Your task to perform on an android device: Go to sound settings Image 0: 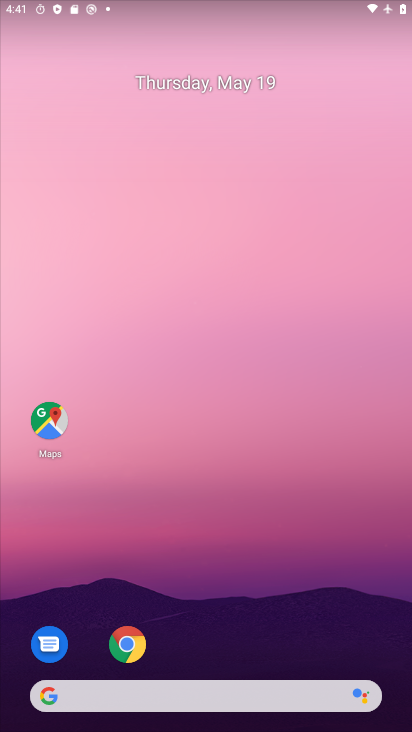
Step 0: drag from (207, 688) to (209, 269)
Your task to perform on an android device: Go to sound settings Image 1: 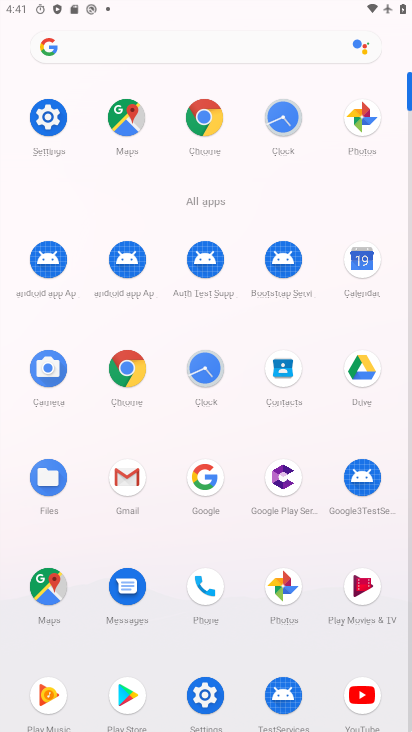
Step 1: click (55, 114)
Your task to perform on an android device: Go to sound settings Image 2: 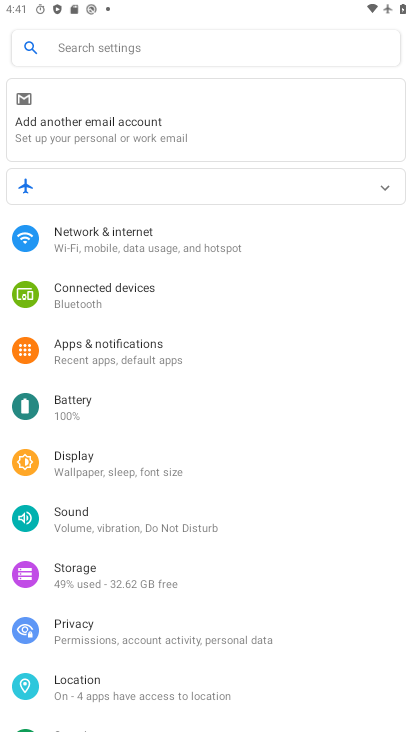
Step 2: click (84, 522)
Your task to perform on an android device: Go to sound settings Image 3: 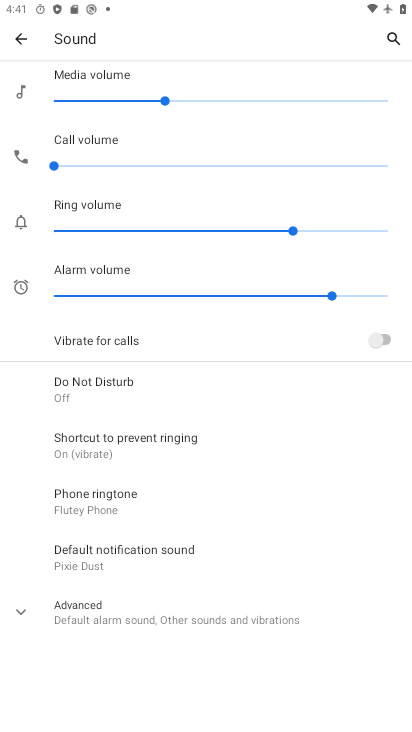
Step 3: click (93, 612)
Your task to perform on an android device: Go to sound settings Image 4: 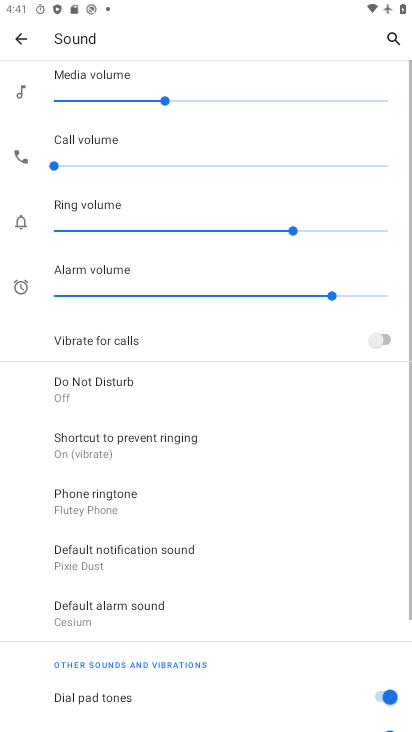
Step 4: task complete